Your task to perform on an android device: refresh tabs in the chrome app Image 0: 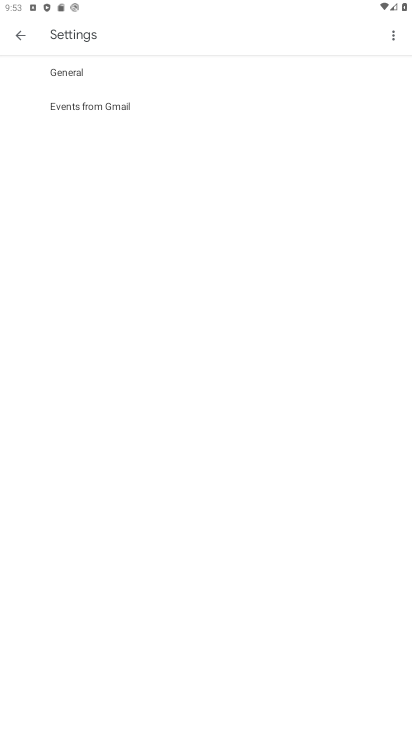
Step 0: press home button
Your task to perform on an android device: refresh tabs in the chrome app Image 1: 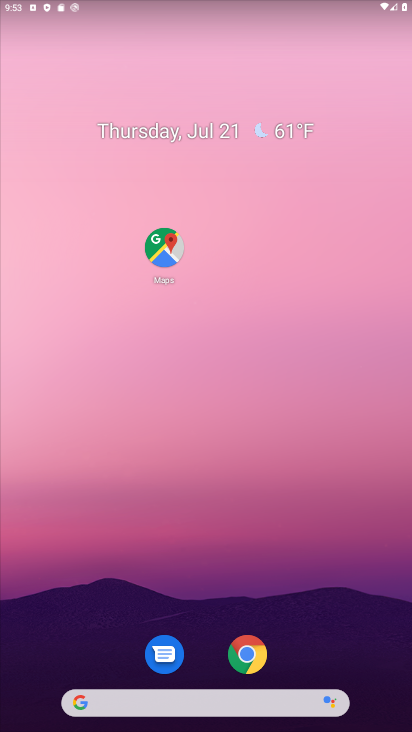
Step 1: click (251, 654)
Your task to perform on an android device: refresh tabs in the chrome app Image 2: 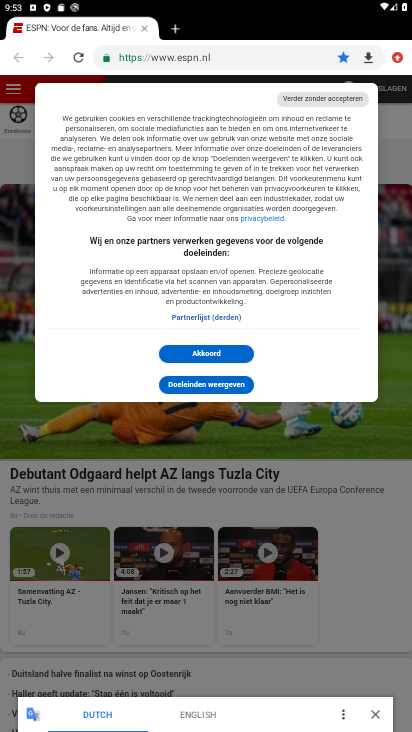
Step 2: click (398, 56)
Your task to perform on an android device: refresh tabs in the chrome app Image 3: 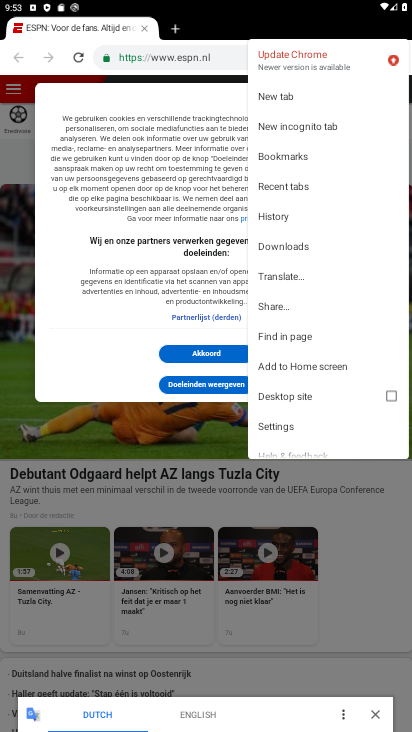
Step 3: click (284, 95)
Your task to perform on an android device: refresh tabs in the chrome app Image 4: 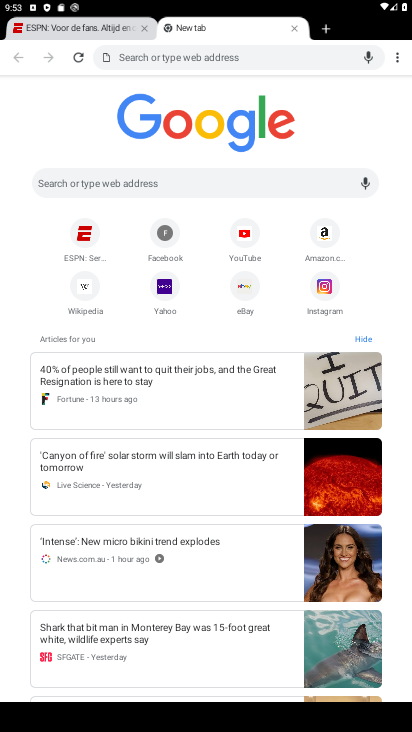
Step 4: task complete